Your task to perform on an android device: change keyboard looks Image 0: 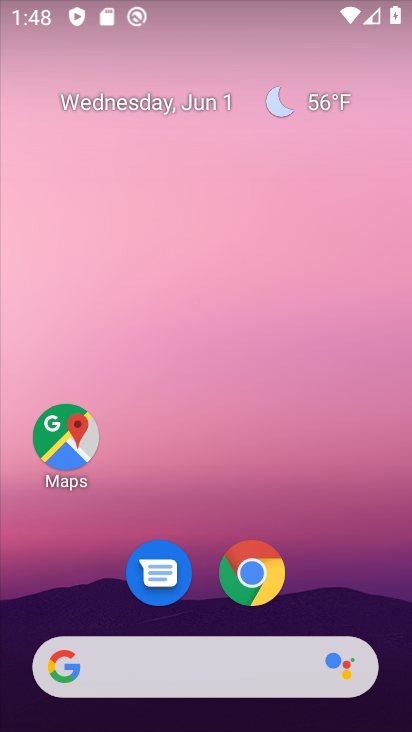
Step 0: click (231, 103)
Your task to perform on an android device: change keyboard looks Image 1: 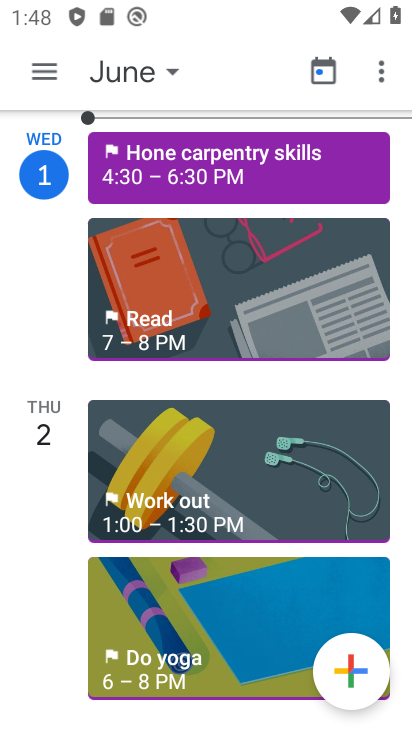
Step 1: press home button
Your task to perform on an android device: change keyboard looks Image 2: 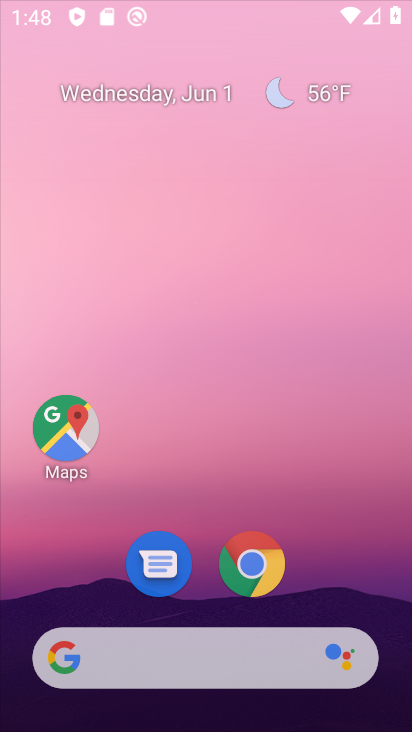
Step 2: drag from (191, 618) to (224, 50)
Your task to perform on an android device: change keyboard looks Image 3: 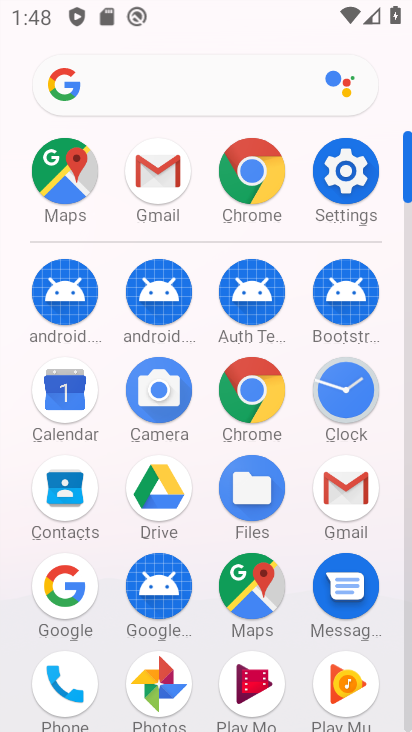
Step 3: click (341, 163)
Your task to perform on an android device: change keyboard looks Image 4: 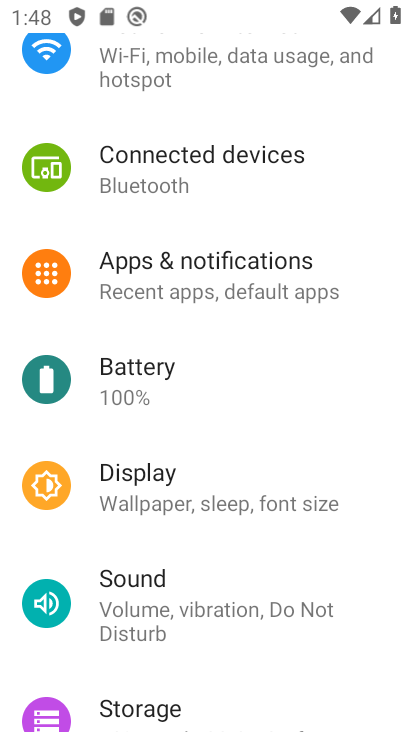
Step 4: drag from (177, 607) to (207, 73)
Your task to perform on an android device: change keyboard looks Image 5: 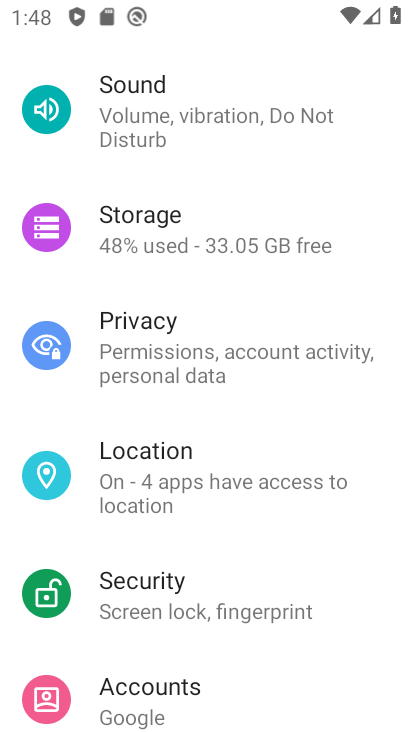
Step 5: drag from (186, 201) to (306, 731)
Your task to perform on an android device: change keyboard looks Image 6: 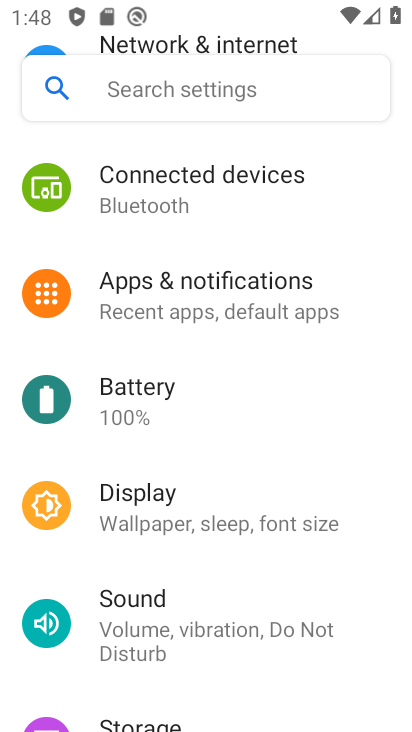
Step 6: drag from (247, 599) to (311, 18)
Your task to perform on an android device: change keyboard looks Image 7: 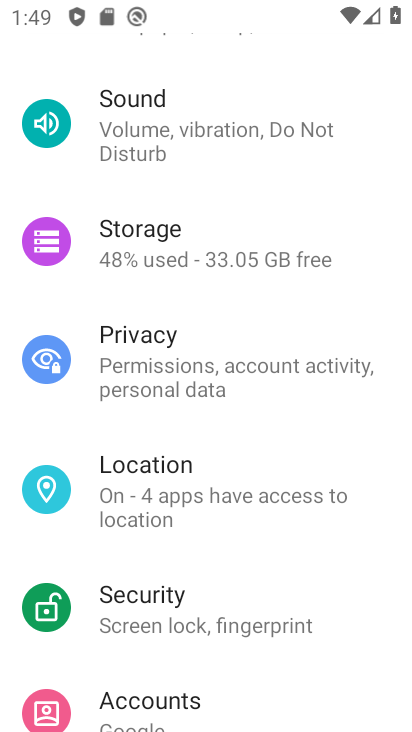
Step 7: drag from (177, 651) to (213, 147)
Your task to perform on an android device: change keyboard looks Image 8: 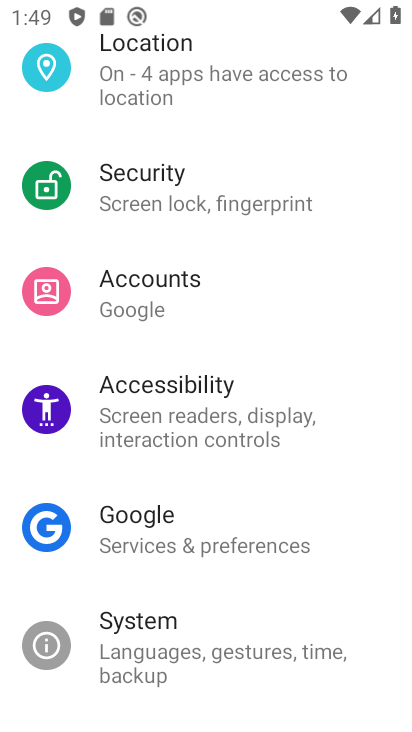
Step 8: click (170, 637)
Your task to perform on an android device: change keyboard looks Image 9: 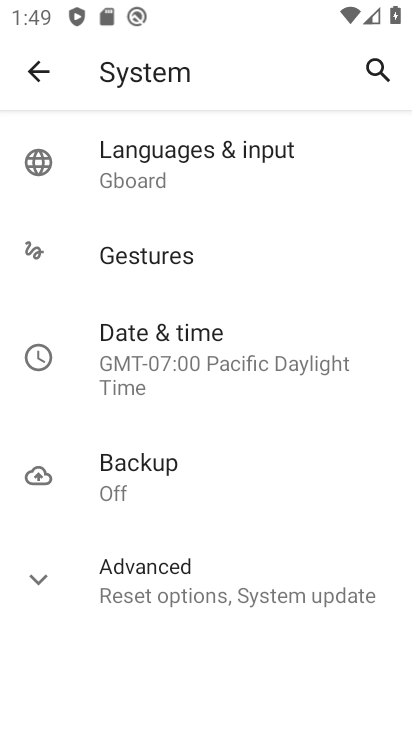
Step 9: click (159, 173)
Your task to perform on an android device: change keyboard looks Image 10: 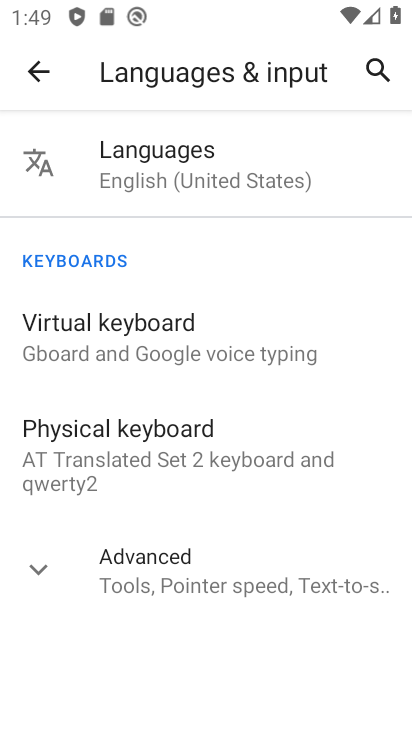
Step 10: click (120, 348)
Your task to perform on an android device: change keyboard looks Image 11: 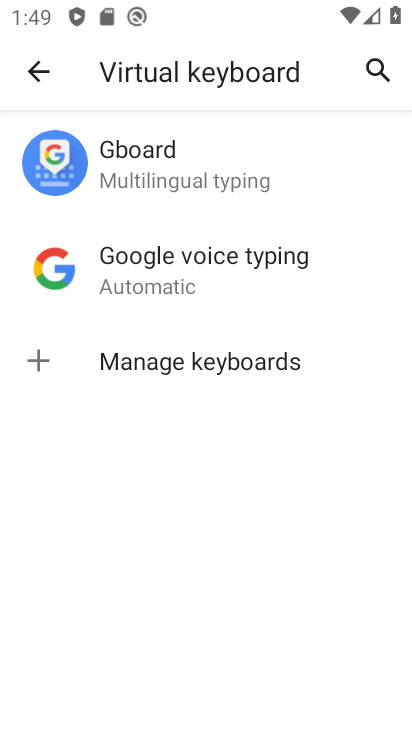
Step 11: click (164, 162)
Your task to perform on an android device: change keyboard looks Image 12: 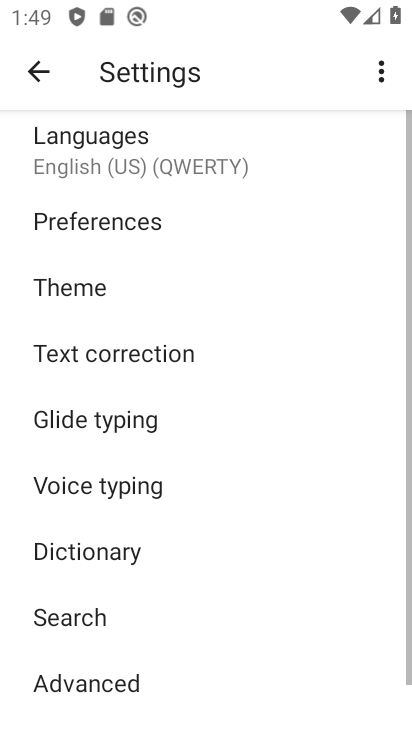
Step 12: click (106, 287)
Your task to perform on an android device: change keyboard looks Image 13: 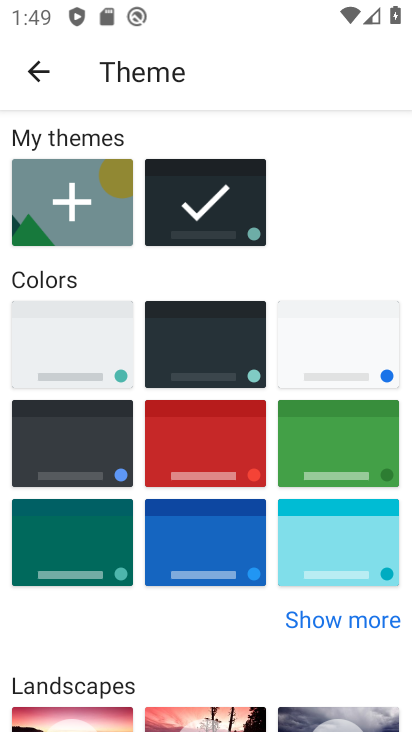
Step 13: click (168, 347)
Your task to perform on an android device: change keyboard looks Image 14: 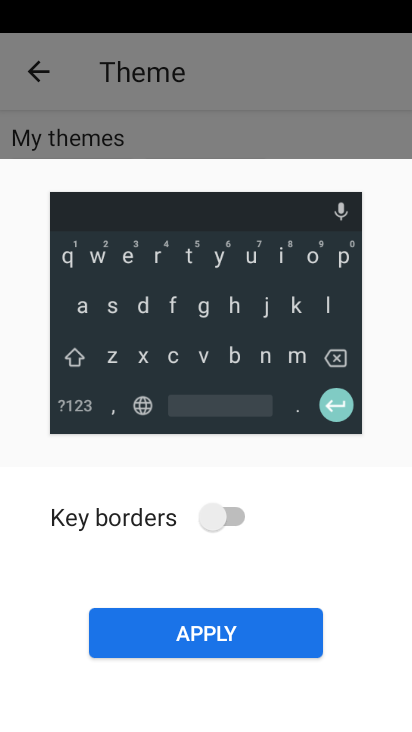
Step 14: click (205, 622)
Your task to perform on an android device: change keyboard looks Image 15: 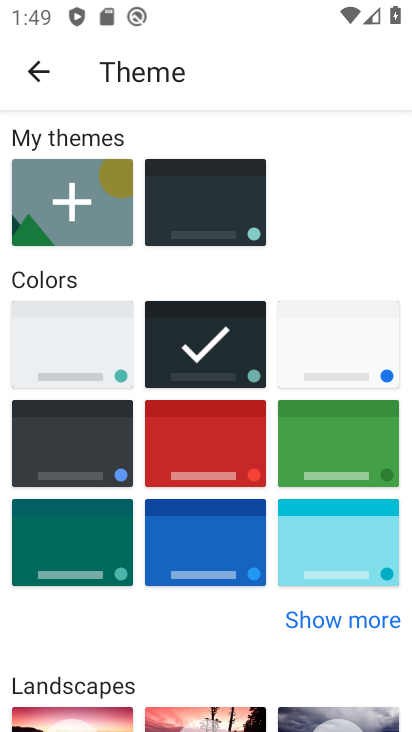
Step 15: task complete